Your task to perform on an android device: Open battery settings Image 0: 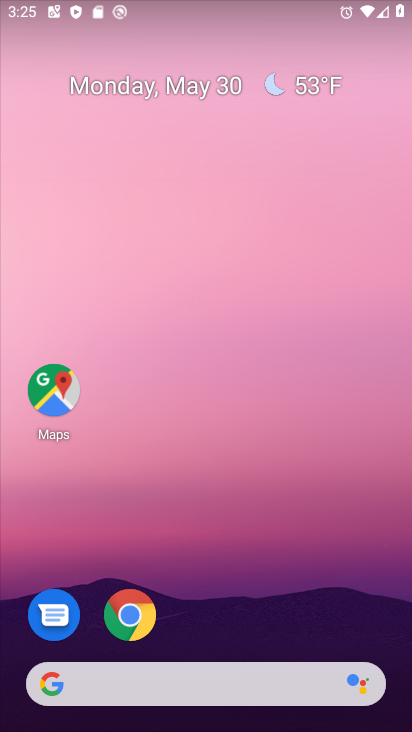
Step 0: drag from (247, 586) to (250, 67)
Your task to perform on an android device: Open battery settings Image 1: 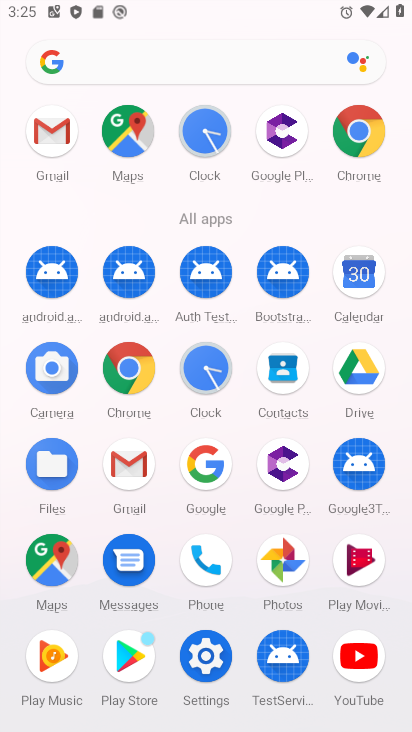
Step 1: click (216, 669)
Your task to perform on an android device: Open battery settings Image 2: 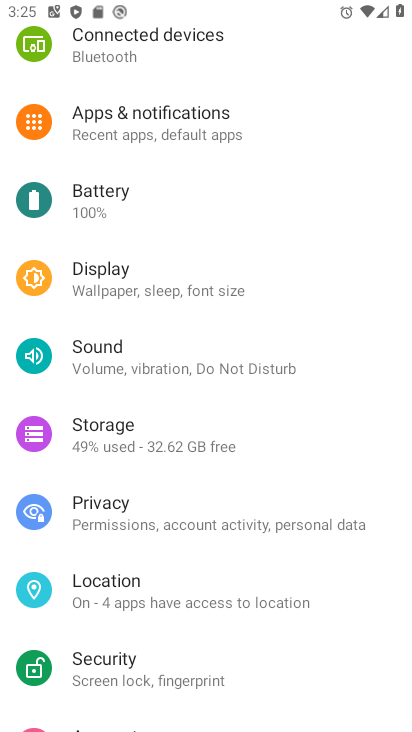
Step 2: click (87, 199)
Your task to perform on an android device: Open battery settings Image 3: 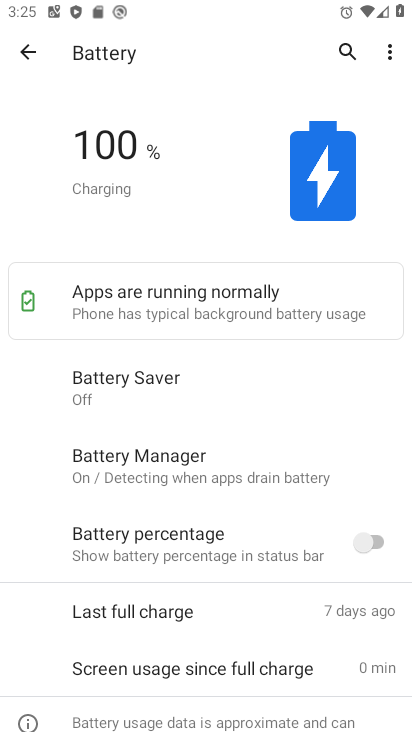
Step 3: task complete